Your task to perform on an android device: Go to sound settings Image 0: 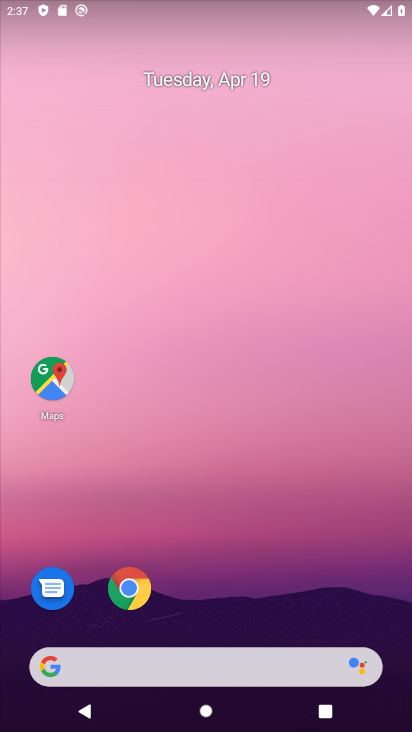
Step 0: drag from (238, 531) to (317, 115)
Your task to perform on an android device: Go to sound settings Image 1: 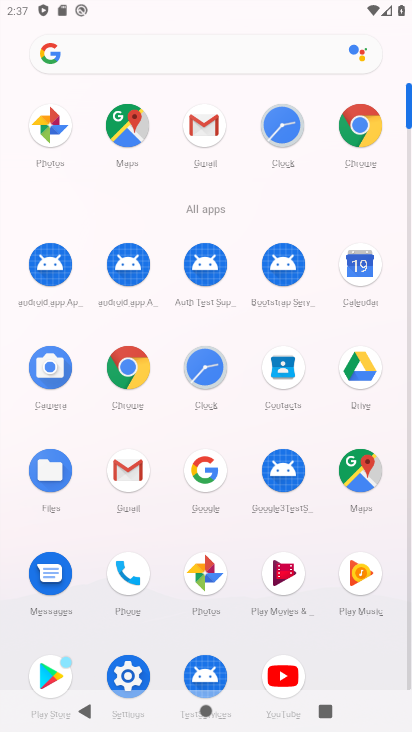
Step 1: click (133, 663)
Your task to perform on an android device: Go to sound settings Image 2: 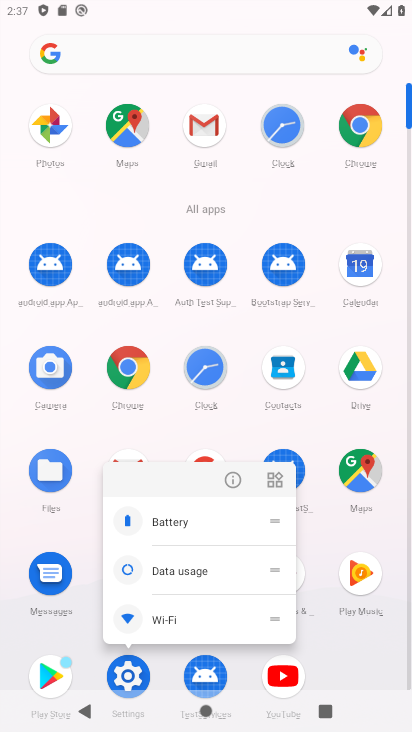
Step 2: click (236, 483)
Your task to perform on an android device: Go to sound settings Image 3: 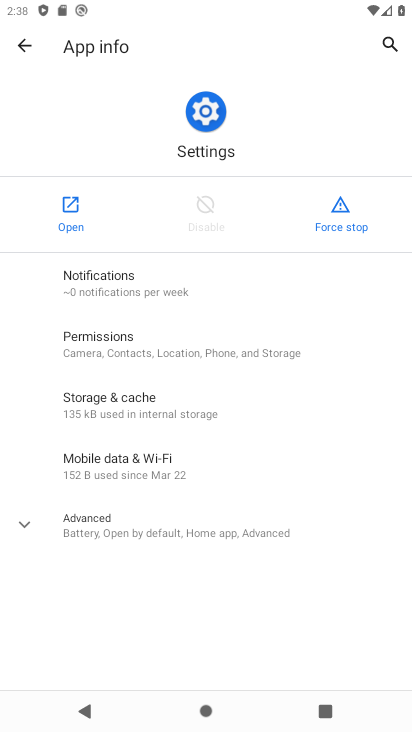
Step 3: drag from (208, 557) to (74, 219)
Your task to perform on an android device: Go to sound settings Image 4: 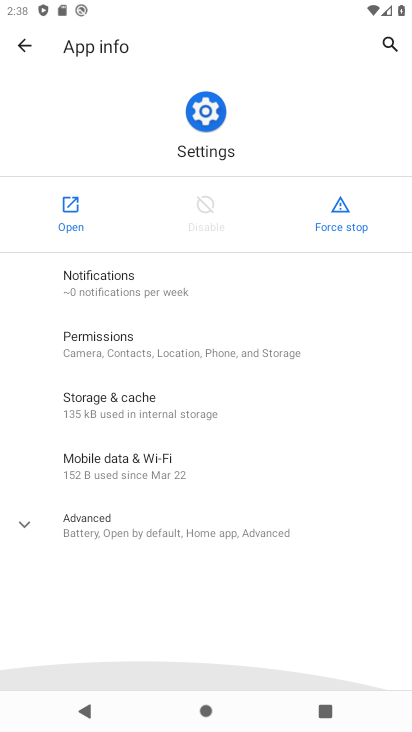
Step 4: drag from (210, 544) to (346, 126)
Your task to perform on an android device: Go to sound settings Image 5: 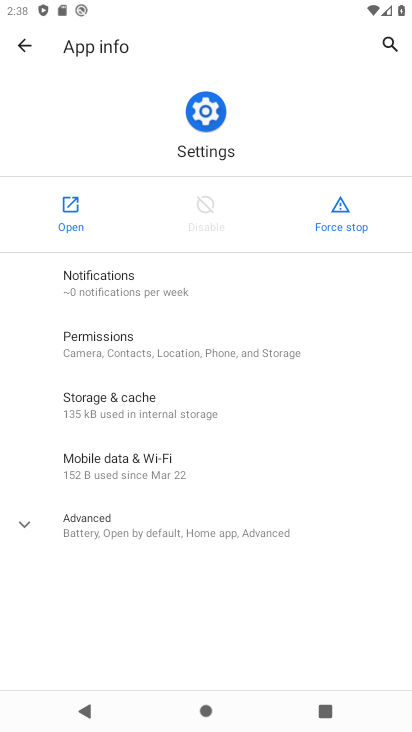
Step 5: click (77, 207)
Your task to perform on an android device: Go to sound settings Image 6: 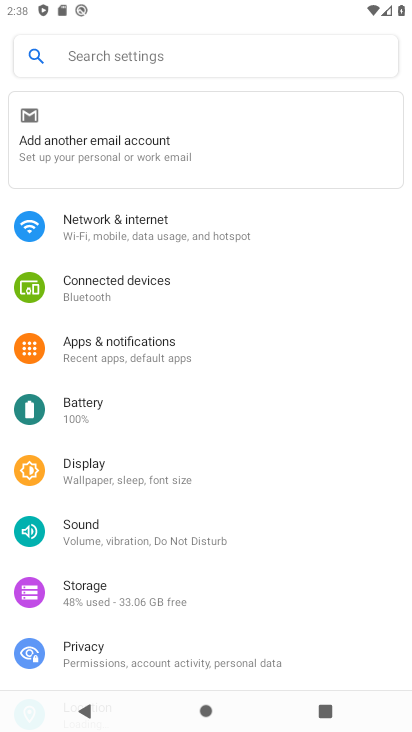
Step 6: drag from (260, 525) to (328, 93)
Your task to perform on an android device: Go to sound settings Image 7: 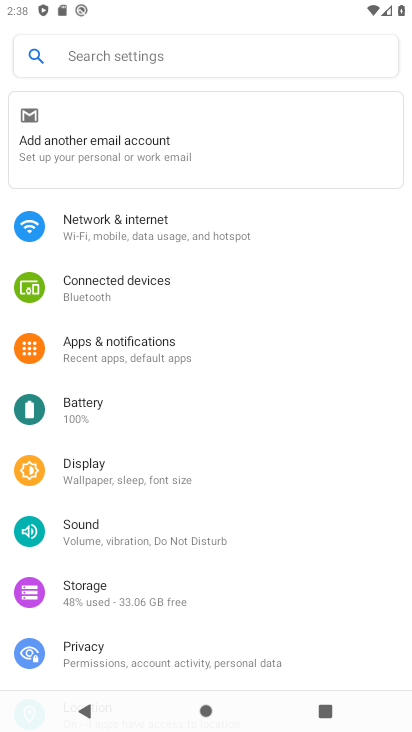
Step 7: click (98, 532)
Your task to perform on an android device: Go to sound settings Image 8: 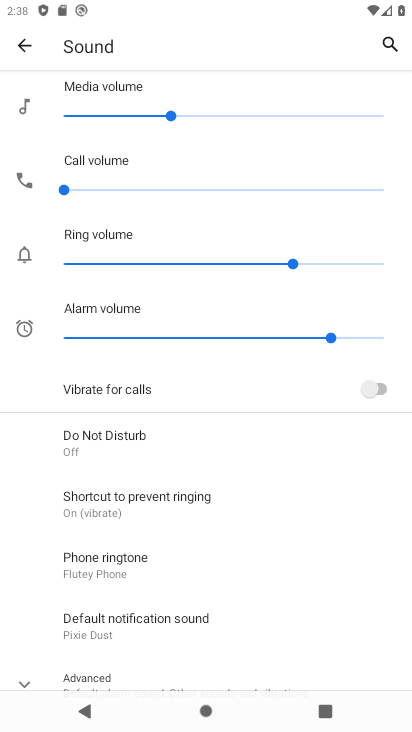
Step 8: task complete